Your task to perform on an android device: toggle improve location accuracy Image 0: 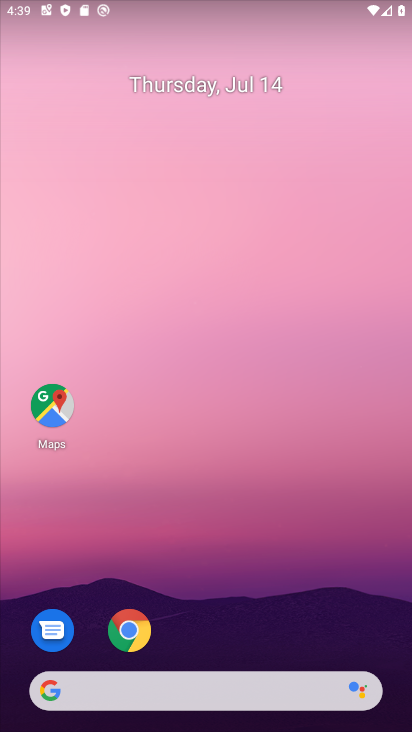
Step 0: drag from (236, 597) to (308, 9)
Your task to perform on an android device: toggle improve location accuracy Image 1: 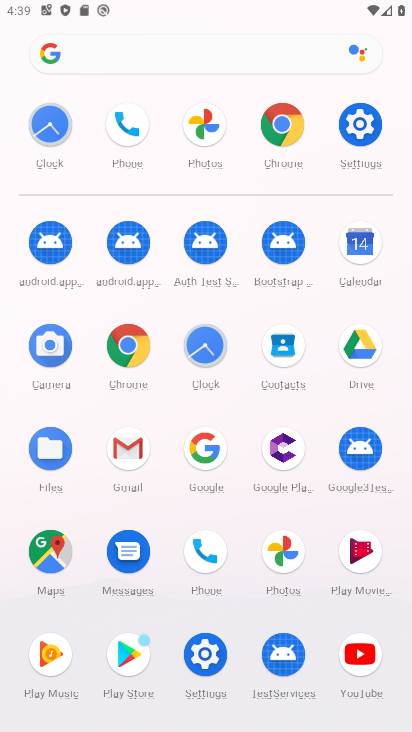
Step 1: click (383, 119)
Your task to perform on an android device: toggle improve location accuracy Image 2: 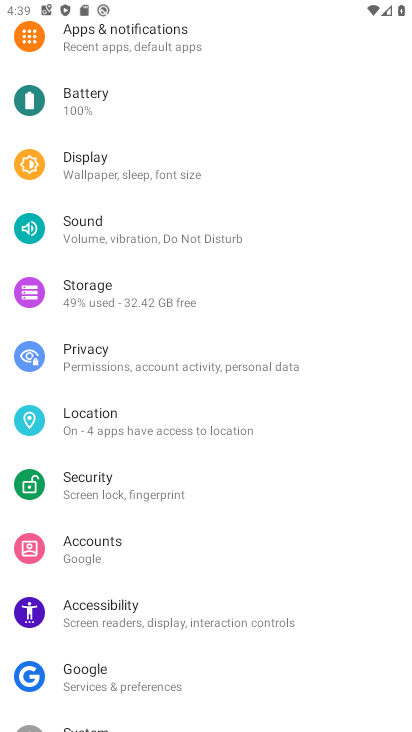
Step 2: drag from (132, 544) to (136, 370)
Your task to perform on an android device: toggle improve location accuracy Image 3: 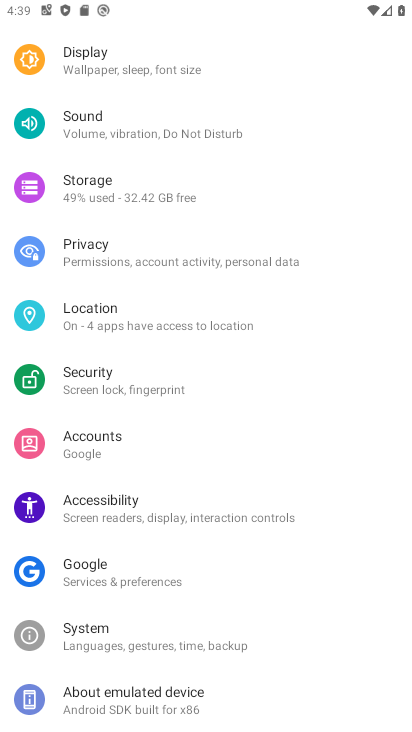
Step 3: click (141, 317)
Your task to perform on an android device: toggle improve location accuracy Image 4: 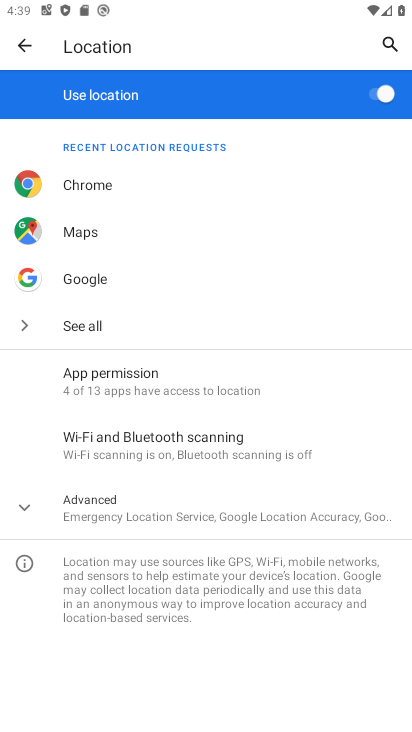
Step 4: click (341, 516)
Your task to perform on an android device: toggle improve location accuracy Image 5: 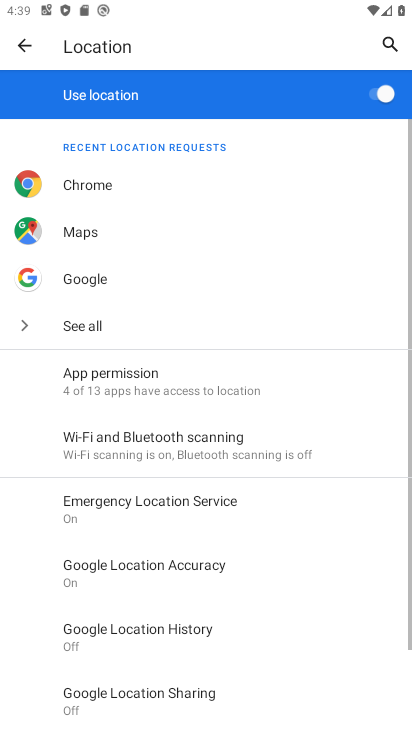
Step 5: click (222, 572)
Your task to perform on an android device: toggle improve location accuracy Image 6: 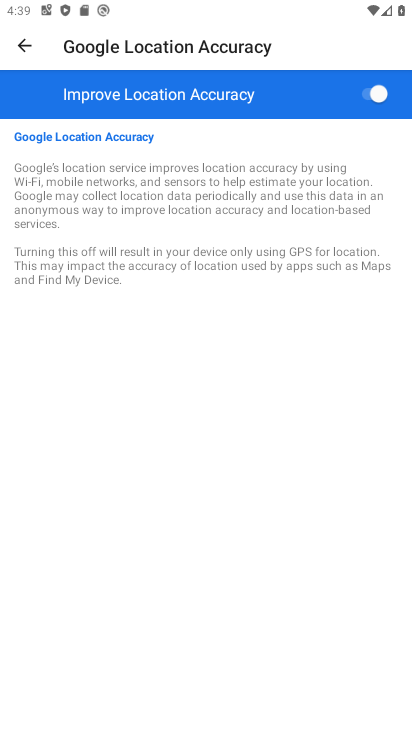
Step 6: click (384, 100)
Your task to perform on an android device: toggle improve location accuracy Image 7: 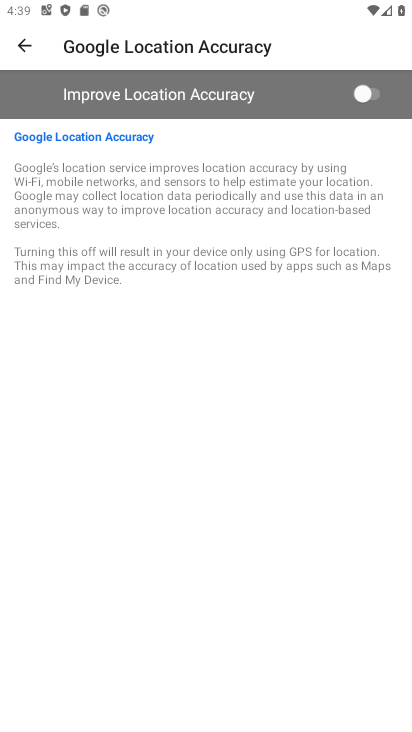
Step 7: task complete